Your task to perform on an android device: clear history in the chrome app Image 0: 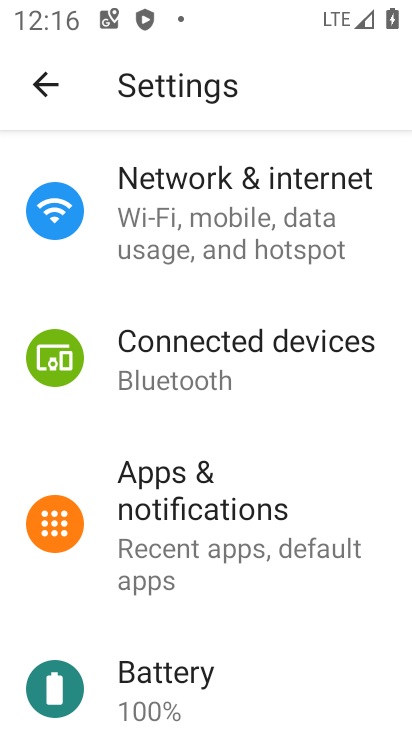
Step 0: press home button
Your task to perform on an android device: clear history in the chrome app Image 1: 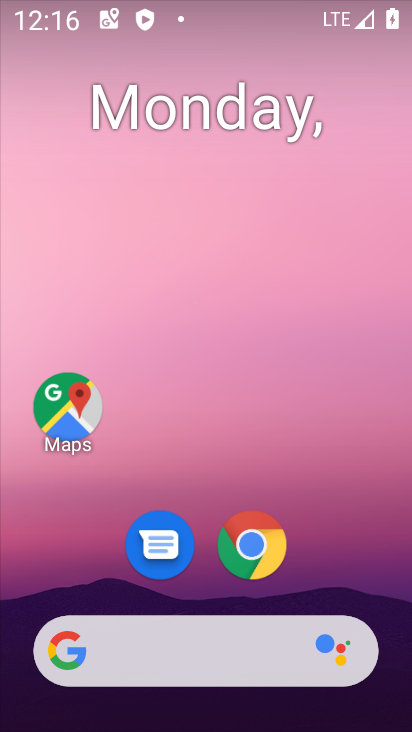
Step 1: drag from (378, 573) to (375, 222)
Your task to perform on an android device: clear history in the chrome app Image 2: 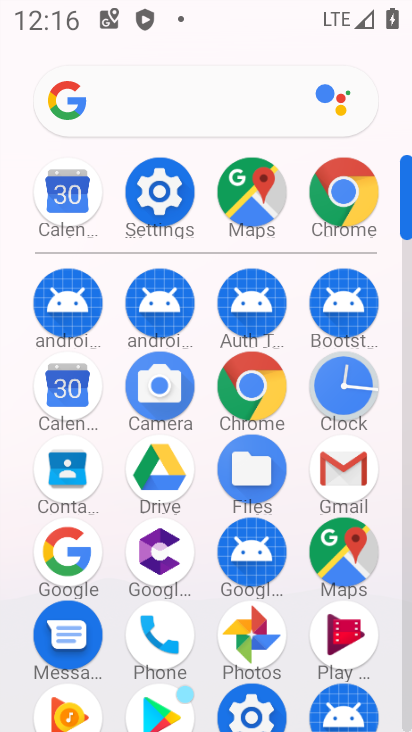
Step 2: click (259, 388)
Your task to perform on an android device: clear history in the chrome app Image 3: 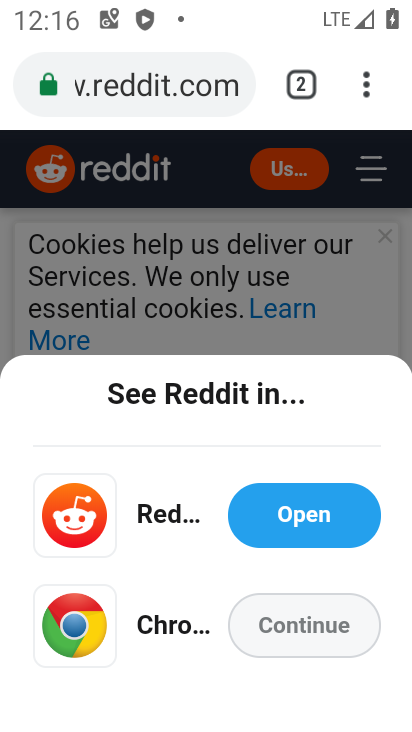
Step 3: click (366, 94)
Your task to perform on an android device: clear history in the chrome app Image 4: 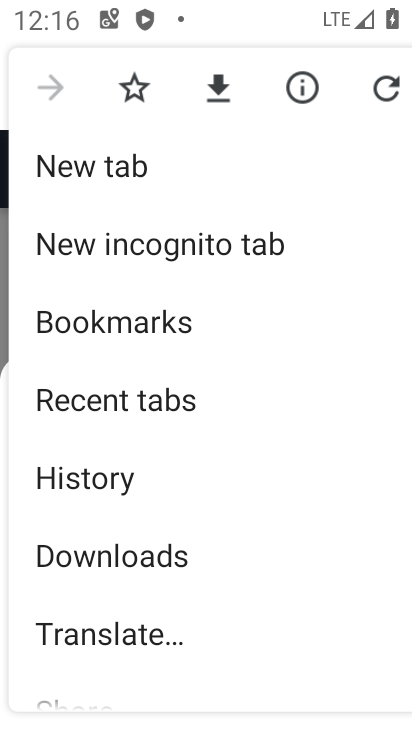
Step 4: click (120, 486)
Your task to perform on an android device: clear history in the chrome app Image 5: 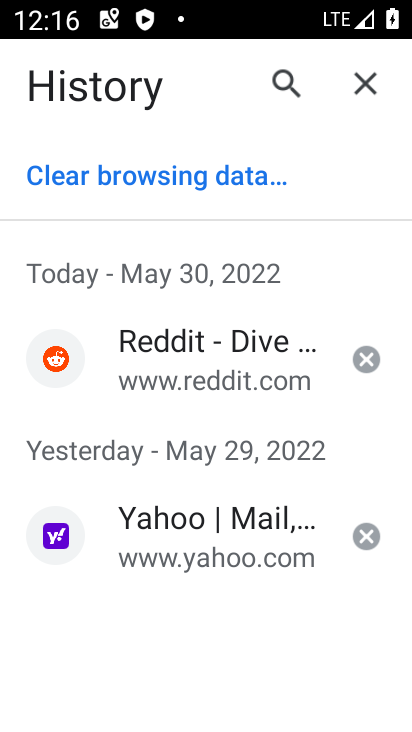
Step 5: click (217, 175)
Your task to perform on an android device: clear history in the chrome app Image 6: 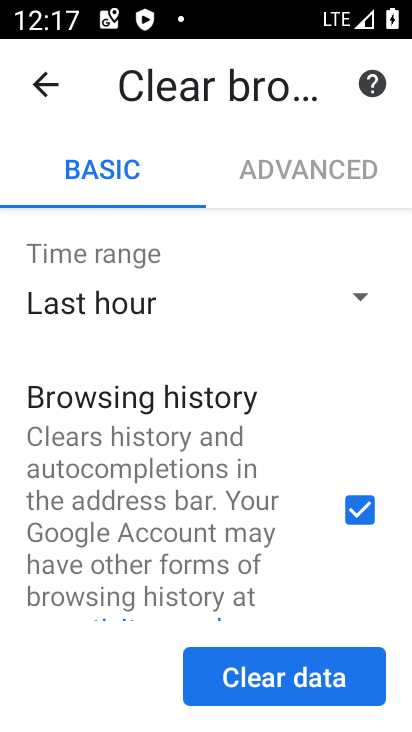
Step 6: click (298, 673)
Your task to perform on an android device: clear history in the chrome app Image 7: 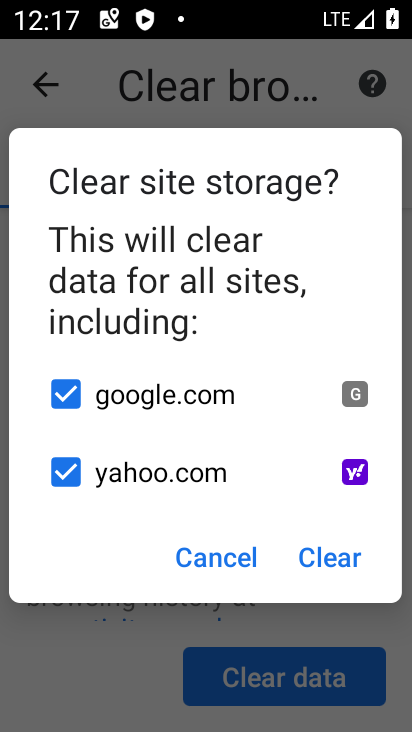
Step 7: click (319, 563)
Your task to perform on an android device: clear history in the chrome app Image 8: 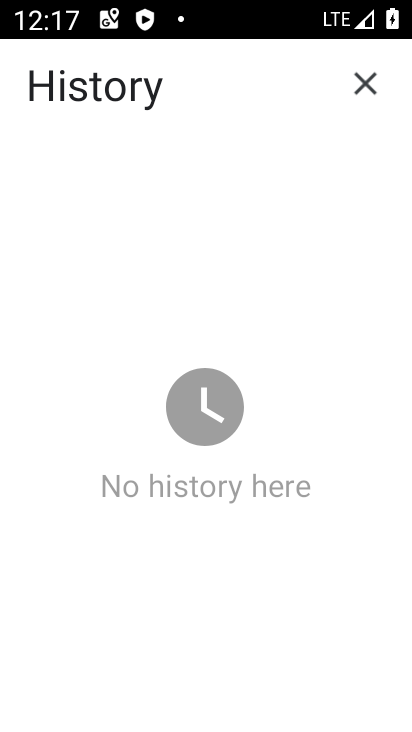
Step 8: task complete